Your task to perform on an android device: change the upload size in google photos Image 0: 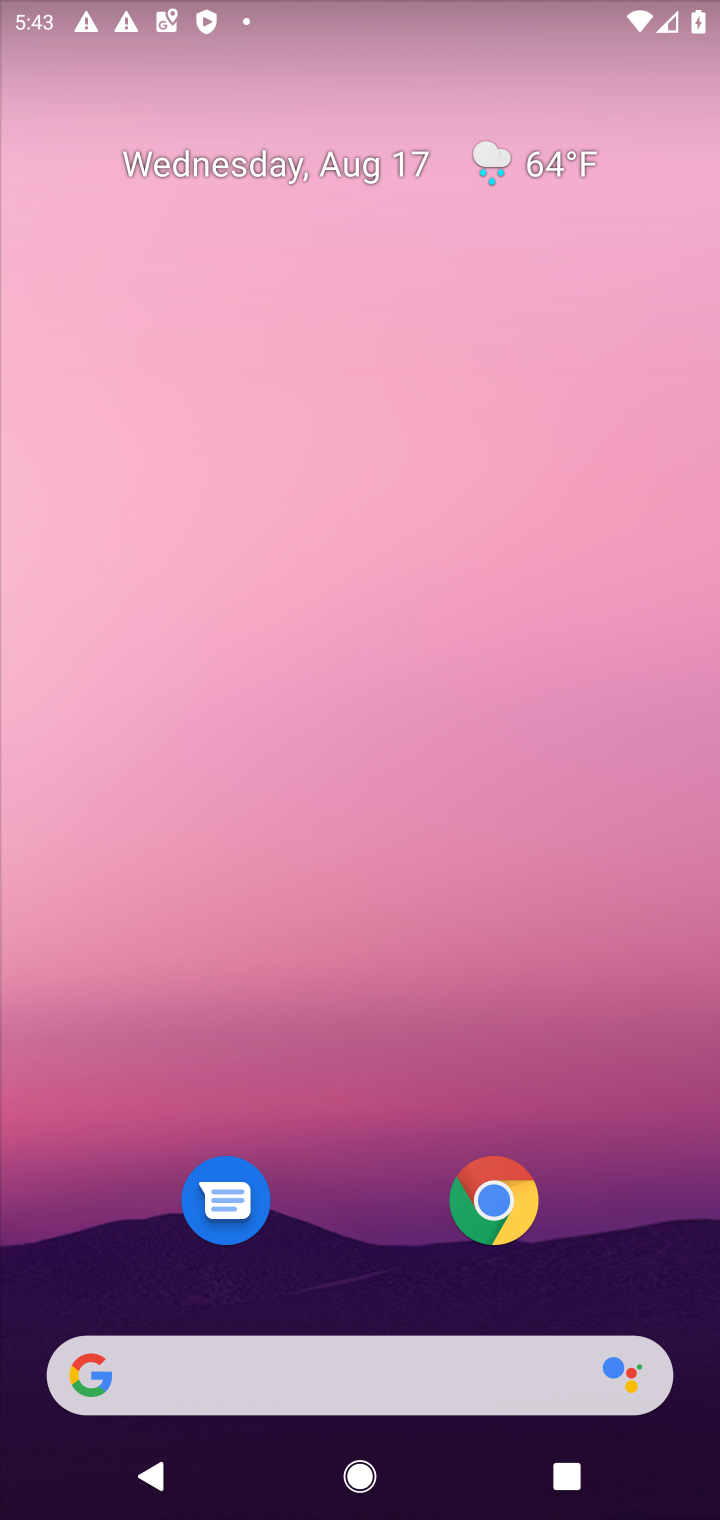
Step 0: drag from (403, 1311) to (386, 112)
Your task to perform on an android device: change the upload size in google photos Image 1: 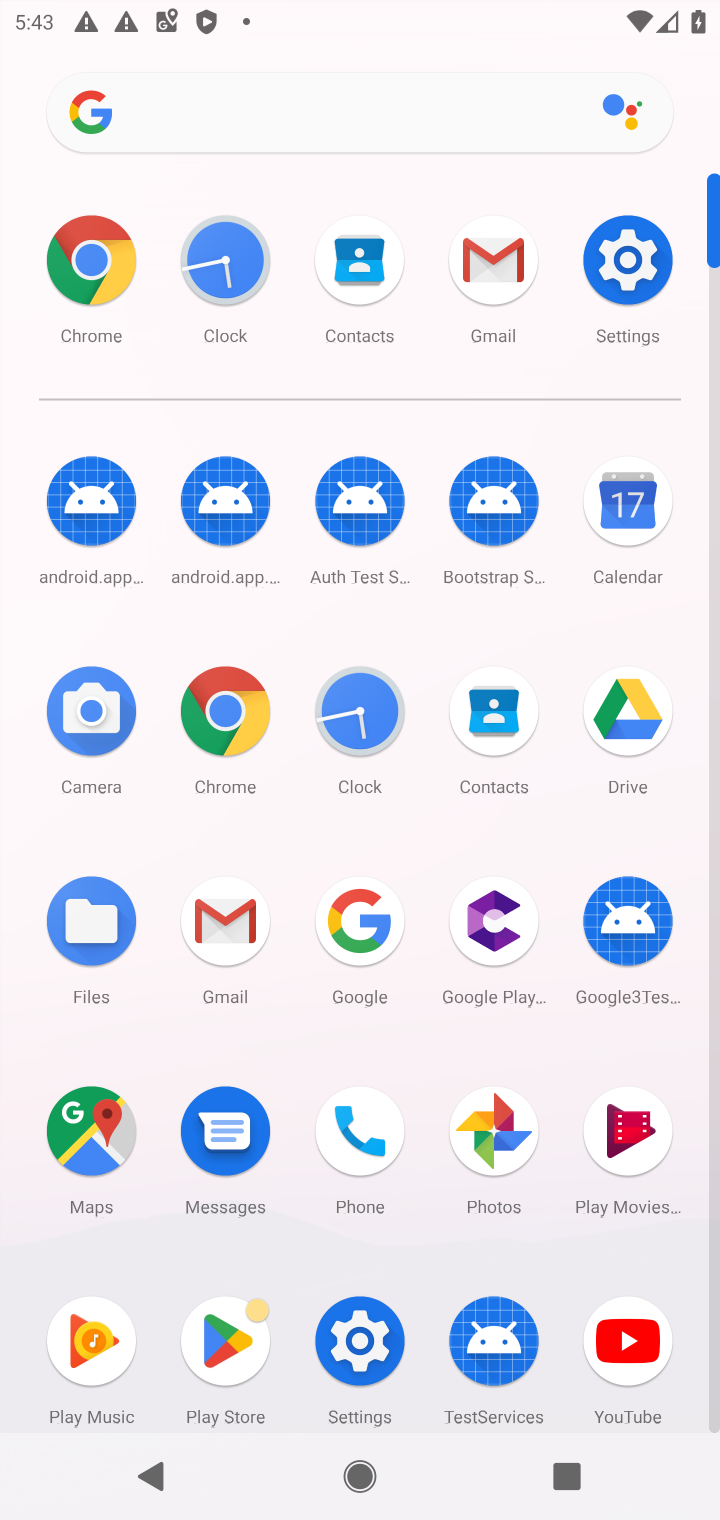
Step 1: click (493, 1130)
Your task to perform on an android device: change the upload size in google photos Image 2: 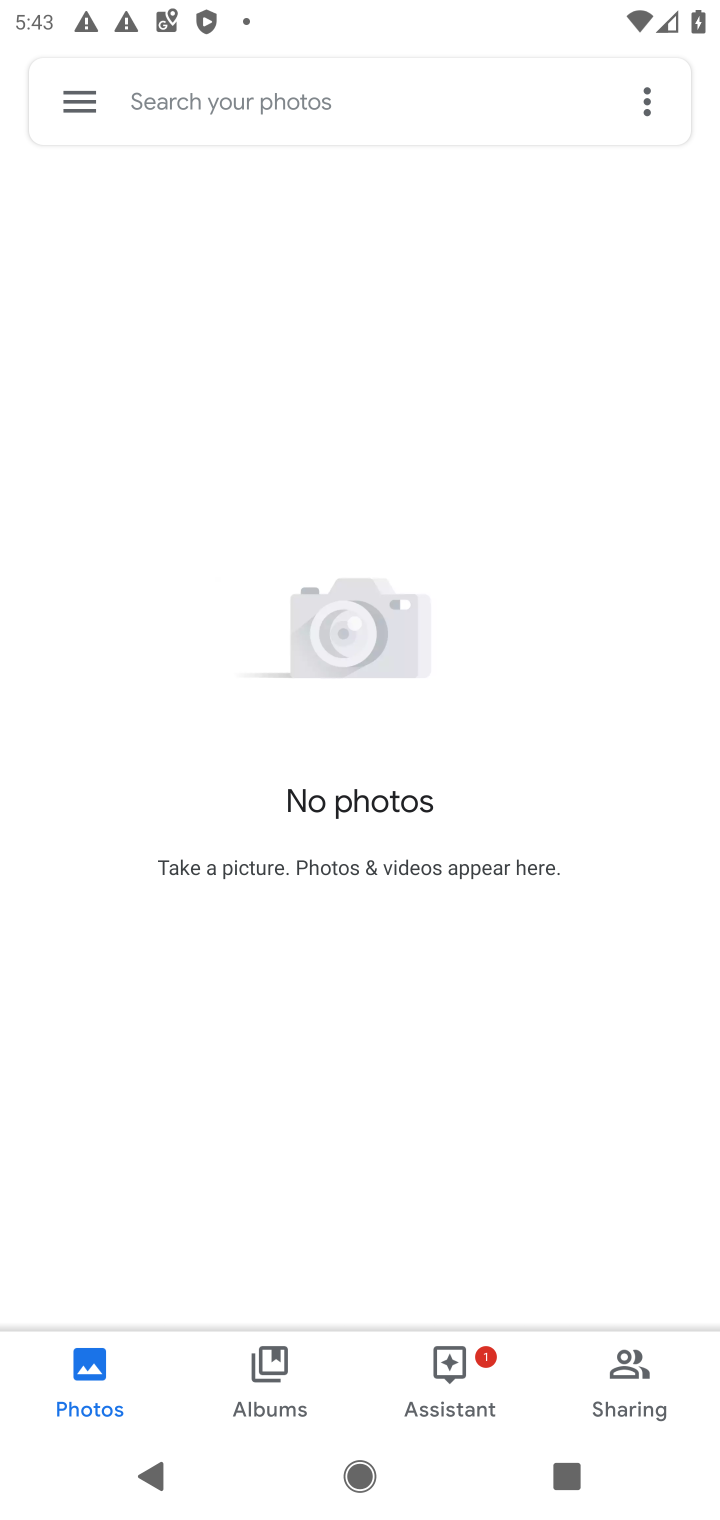
Step 2: click (82, 88)
Your task to perform on an android device: change the upload size in google photos Image 3: 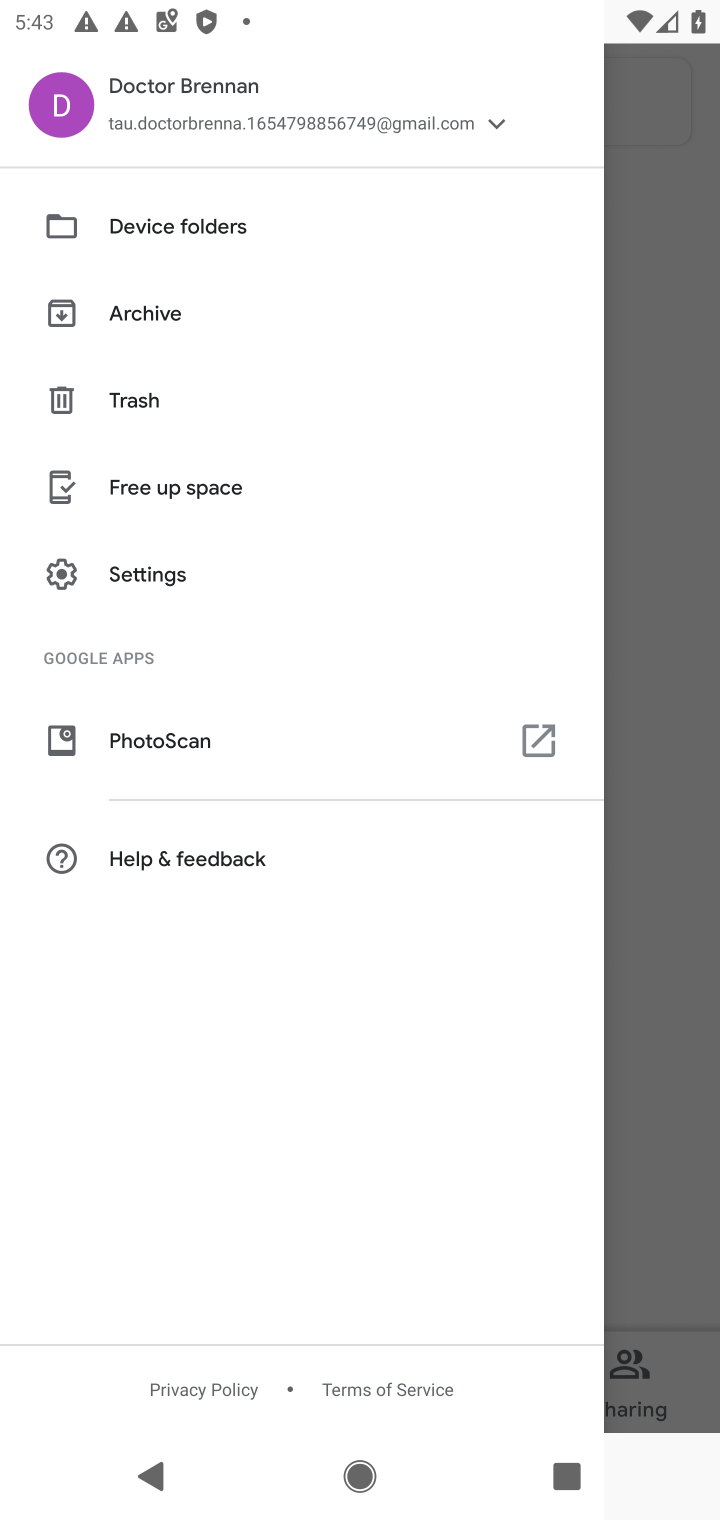
Step 3: click (137, 568)
Your task to perform on an android device: change the upload size in google photos Image 4: 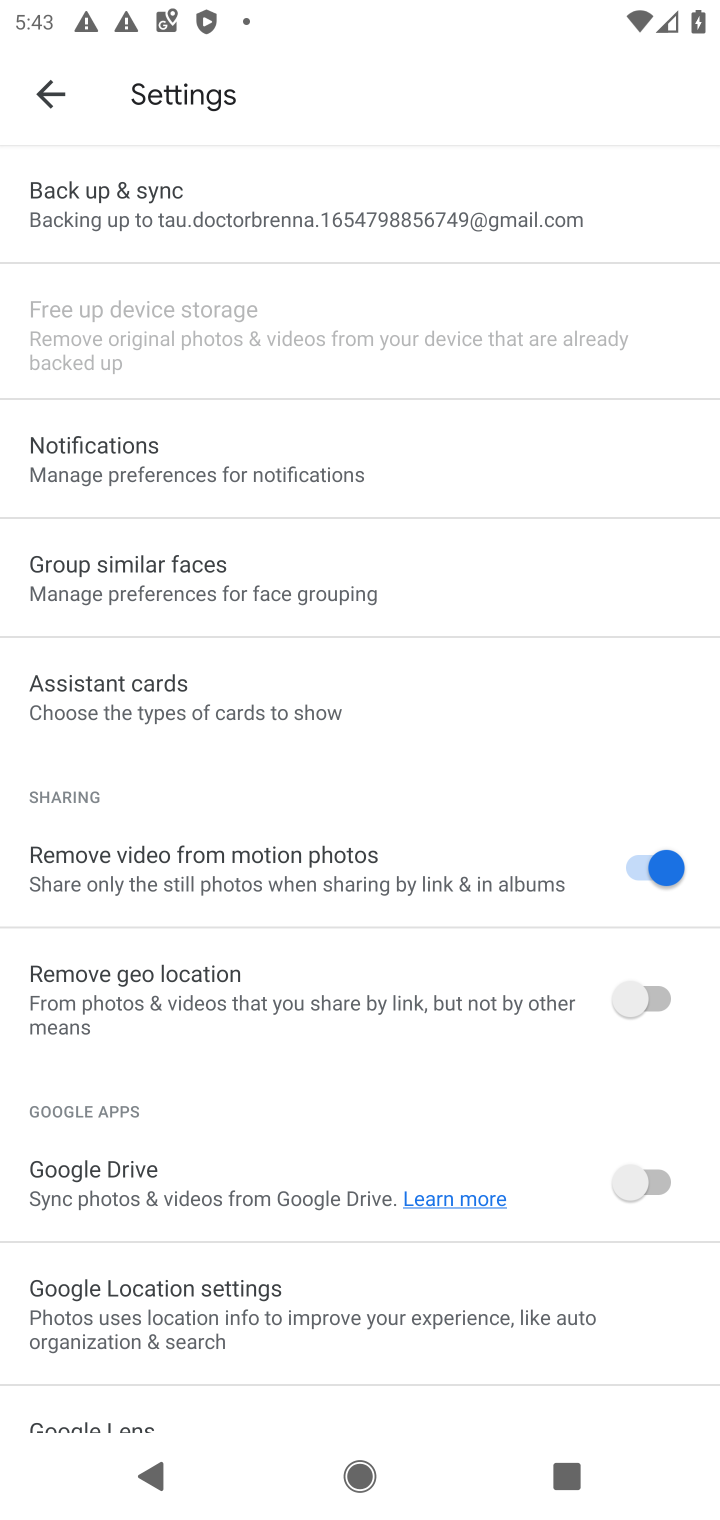
Step 4: click (89, 205)
Your task to perform on an android device: change the upload size in google photos Image 5: 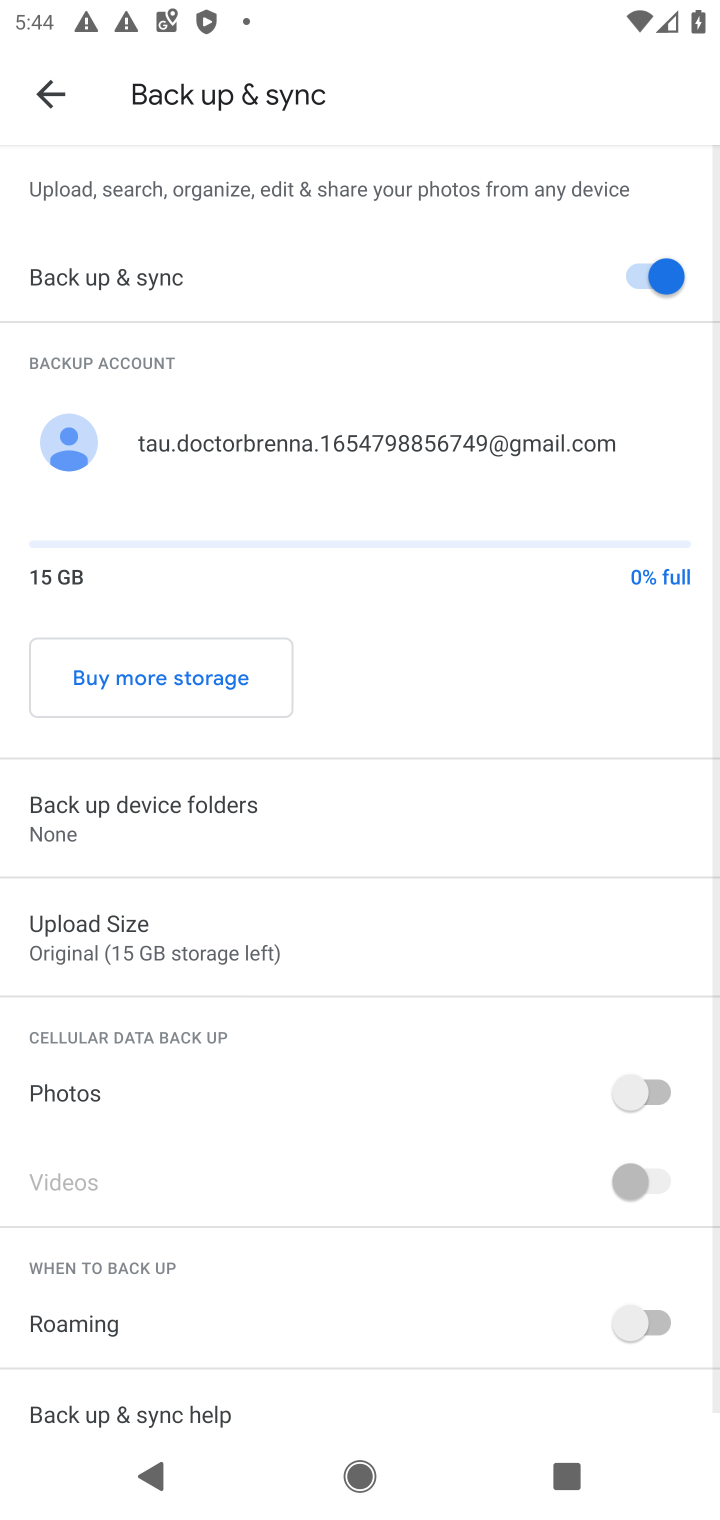
Step 5: click (87, 953)
Your task to perform on an android device: change the upload size in google photos Image 6: 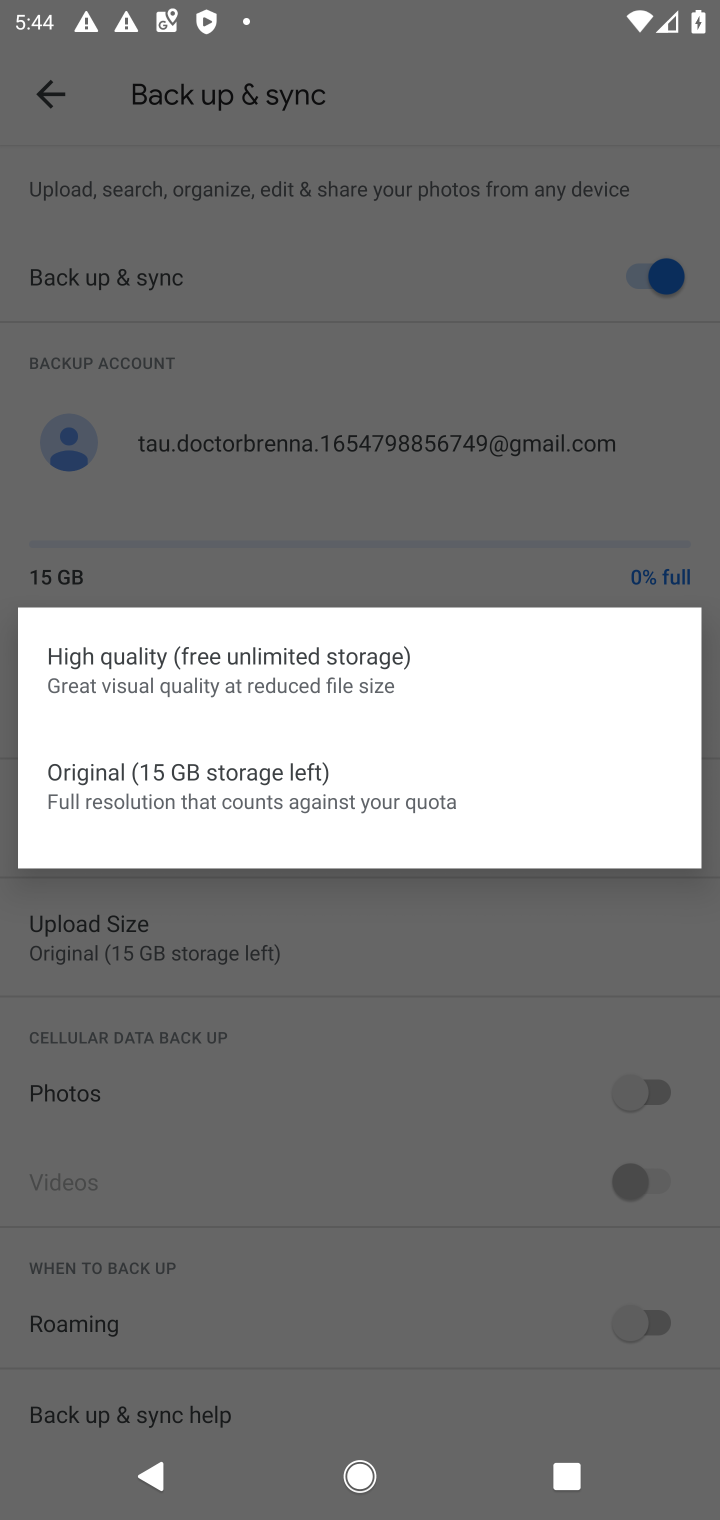
Step 6: click (160, 664)
Your task to perform on an android device: change the upload size in google photos Image 7: 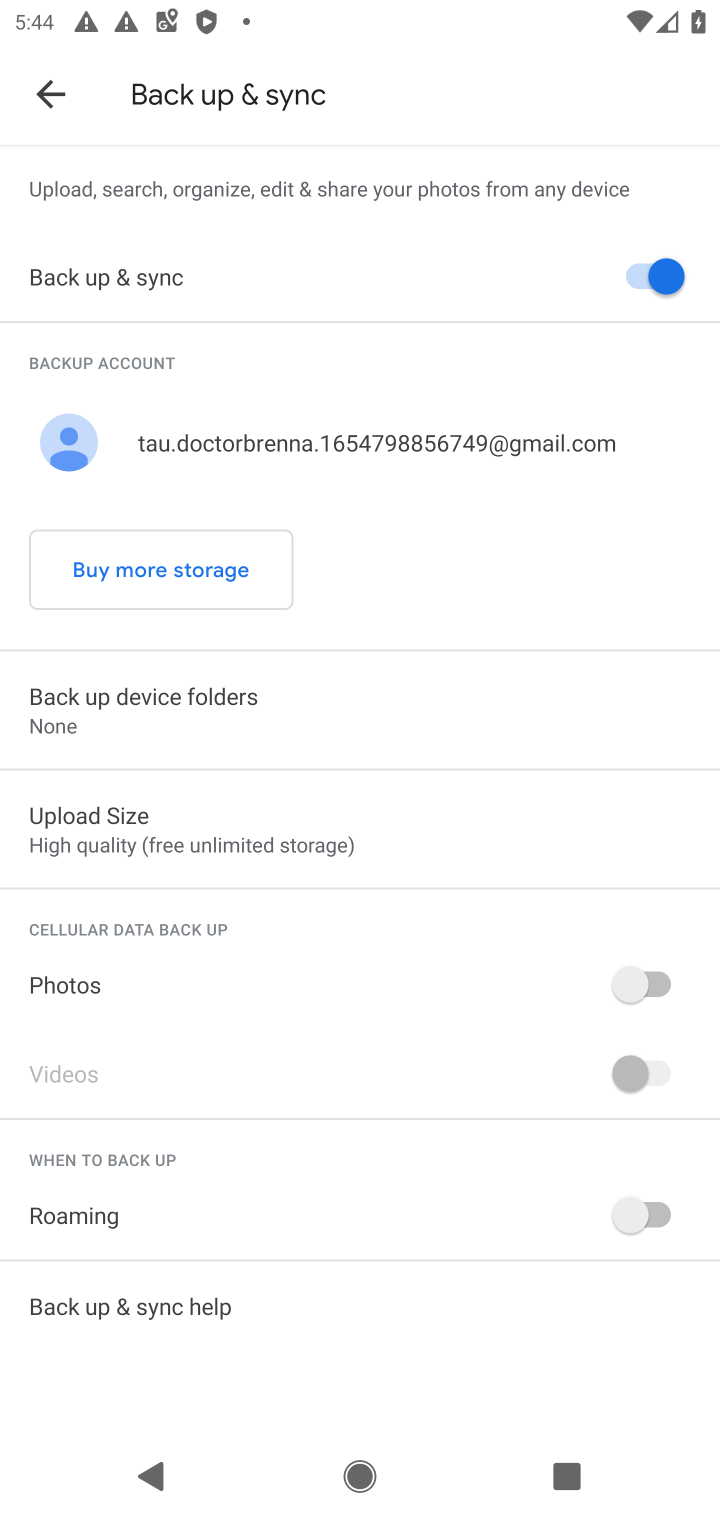
Step 7: task complete